Your task to perform on an android device: Open maps Image 0: 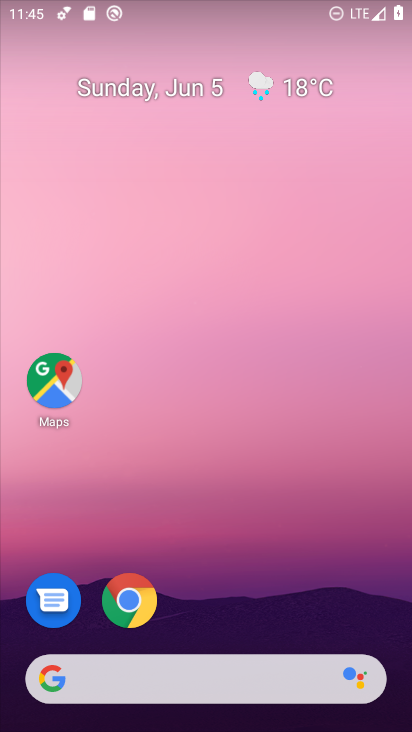
Step 0: click (68, 391)
Your task to perform on an android device: Open maps Image 1: 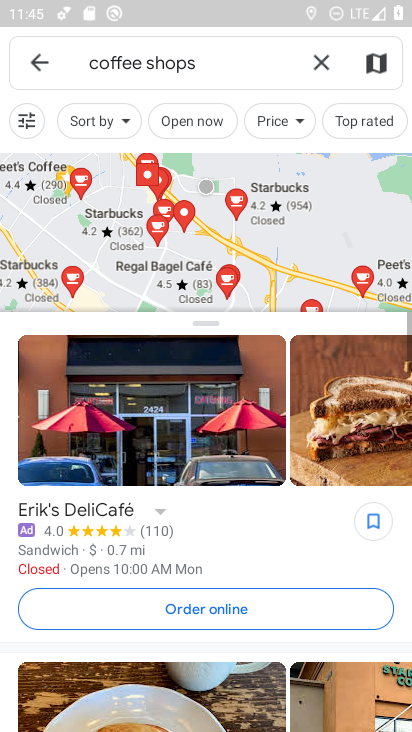
Step 1: task complete